Your task to perform on an android device: Open Chrome and go to the settings page Image 0: 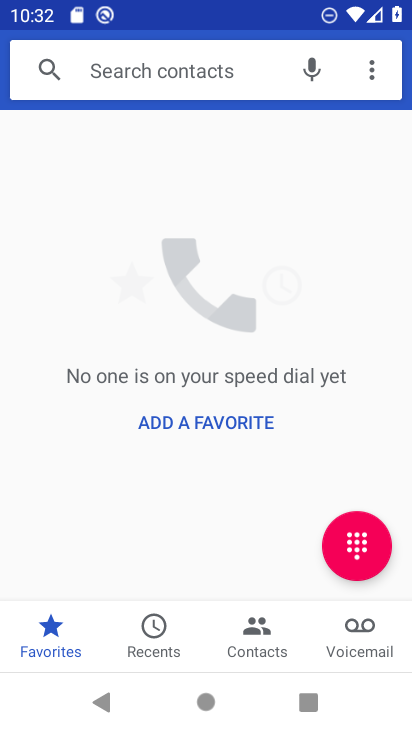
Step 0: press home button
Your task to perform on an android device: Open Chrome and go to the settings page Image 1: 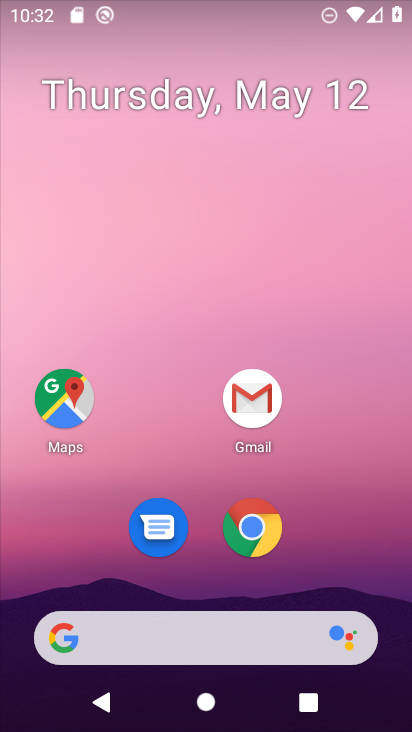
Step 1: click (274, 522)
Your task to perform on an android device: Open Chrome and go to the settings page Image 2: 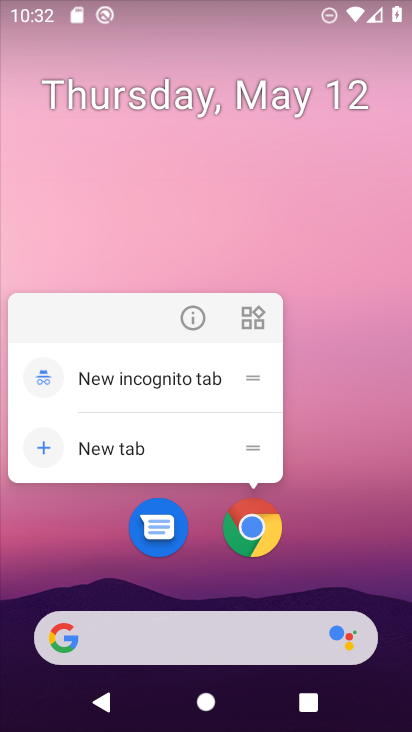
Step 2: click (256, 537)
Your task to perform on an android device: Open Chrome and go to the settings page Image 3: 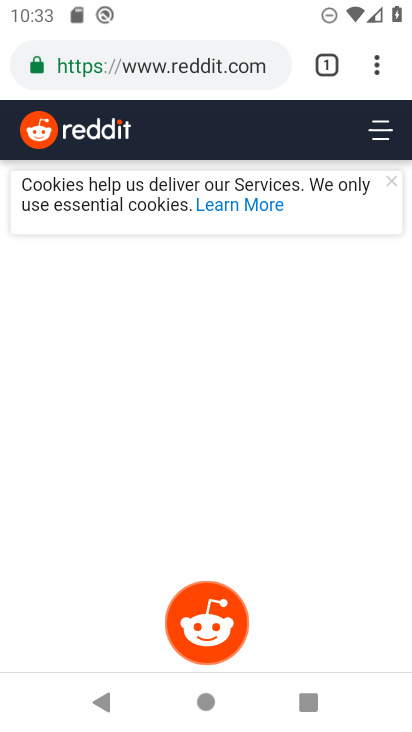
Step 3: click (378, 71)
Your task to perform on an android device: Open Chrome and go to the settings page Image 4: 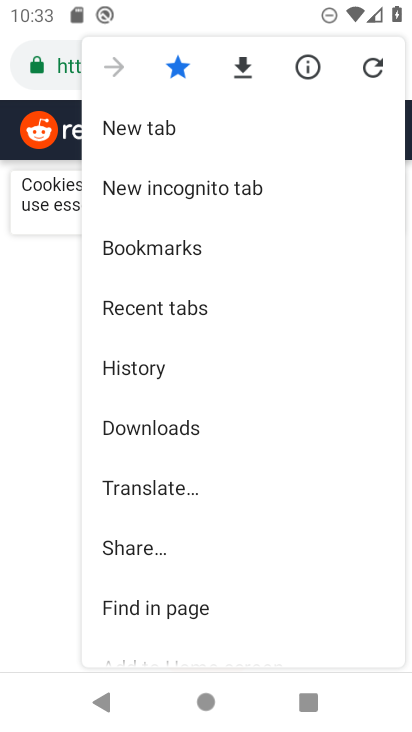
Step 4: drag from (175, 578) to (200, 341)
Your task to perform on an android device: Open Chrome and go to the settings page Image 5: 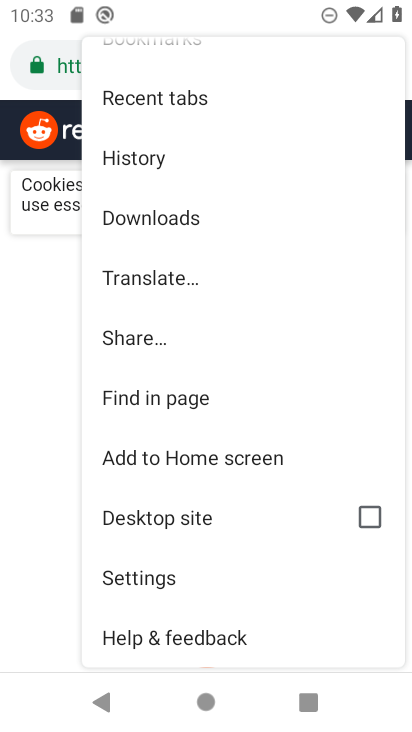
Step 5: click (192, 587)
Your task to perform on an android device: Open Chrome and go to the settings page Image 6: 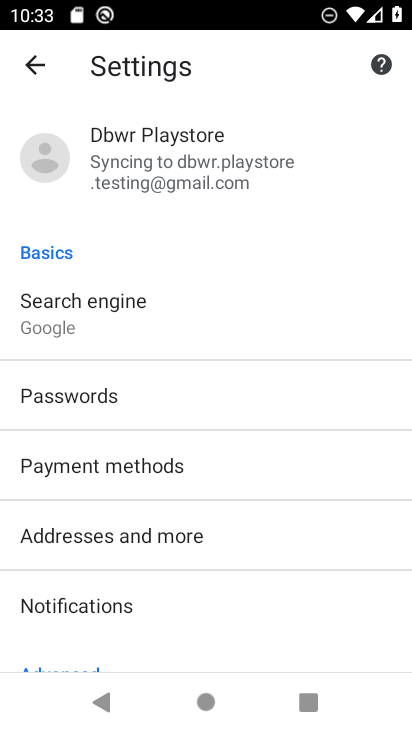
Step 6: task complete